Your task to perform on an android device: Open battery settings Image 0: 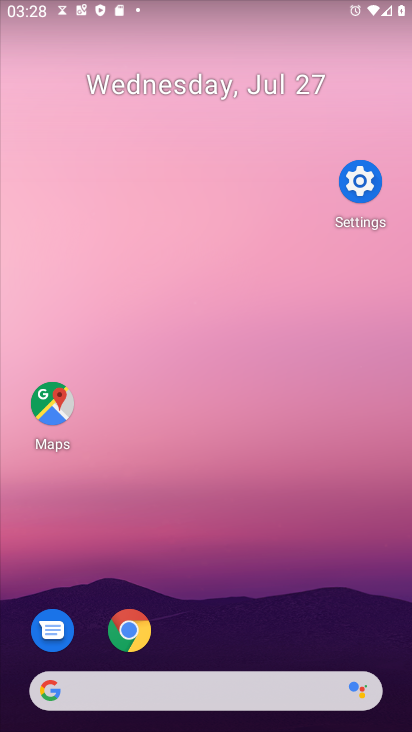
Step 0: drag from (208, 633) to (119, 112)
Your task to perform on an android device: Open battery settings Image 1: 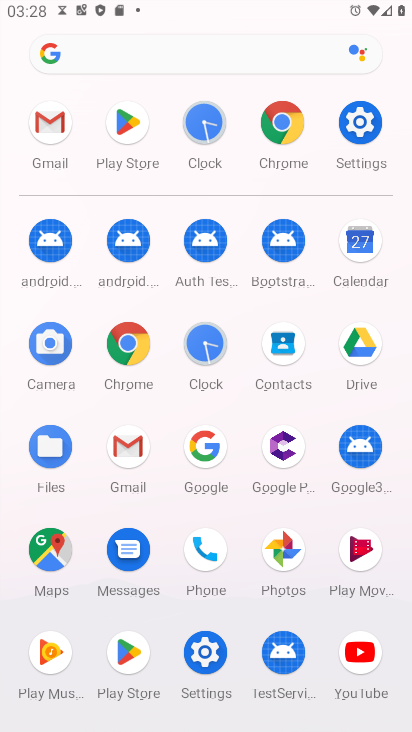
Step 1: click (361, 129)
Your task to perform on an android device: Open battery settings Image 2: 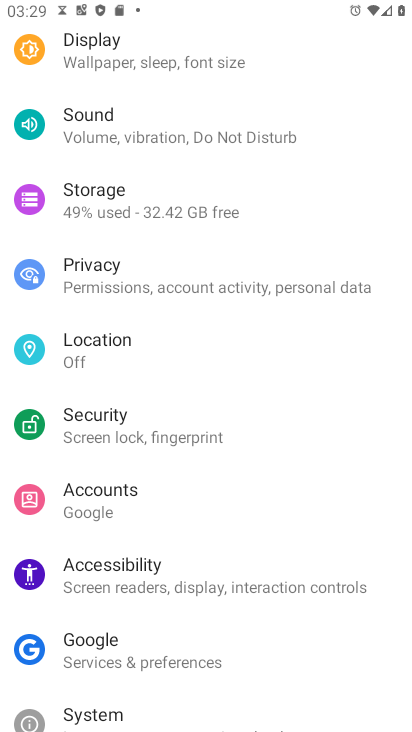
Step 2: drag from (300, 215) to (370, 506)
Your task to perform on an android device: Open battery settings Image 3: 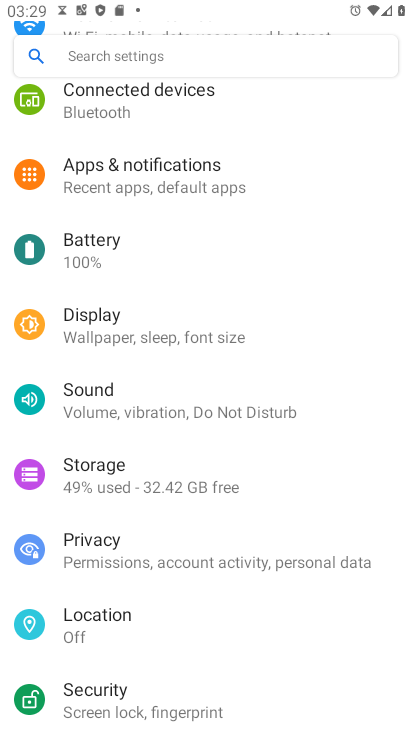
Step 3: click (93, 241)
Your task to perform on an android device: Open battery settings Image 4: 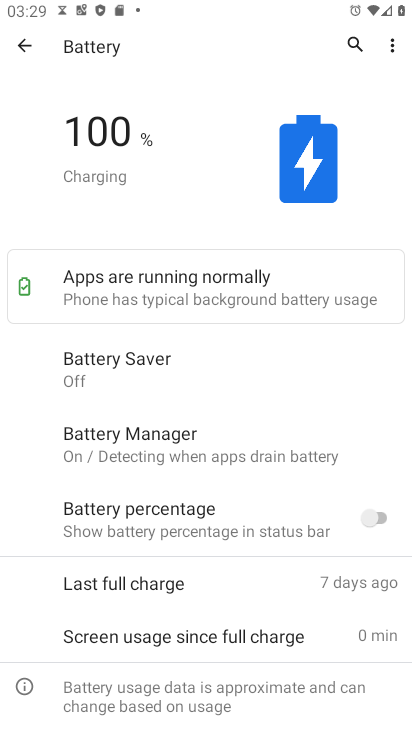
Step 4: task complete